Your task to perform on an android device: Open calendar and show me the first week of next month Image 0: 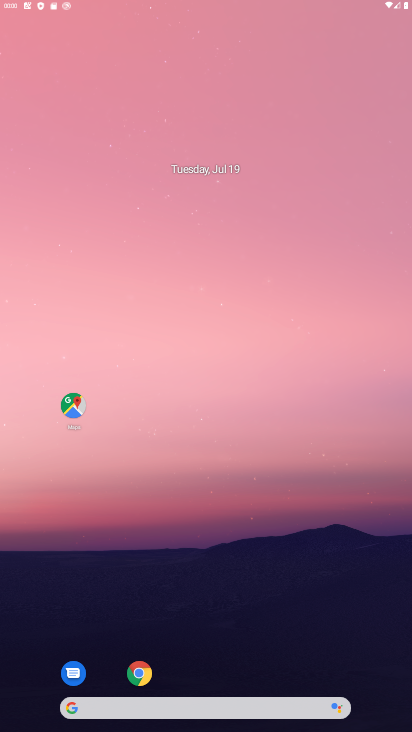
Step 0: drag from (210, 673) to (187, 181)
Your task to perform on an android device: Open calendar and show me the first week of next month Image 1: 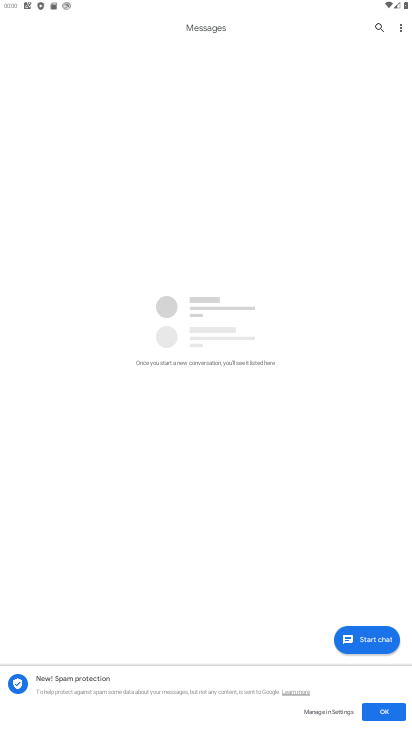
Step 1: press home button
Your task to perform on an android device: Open calendar and show me the first week of next month Image 2: 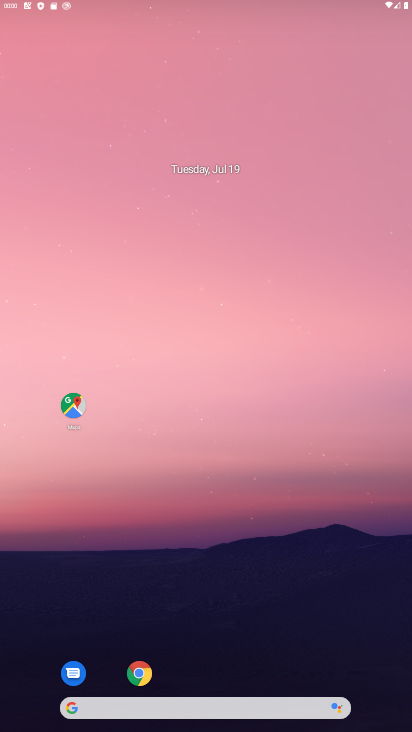
Step 2: drag from (253, 664) to (303, 101)
Your task to perform on an android device: Open calendar and show me the first week of next month Image 3: 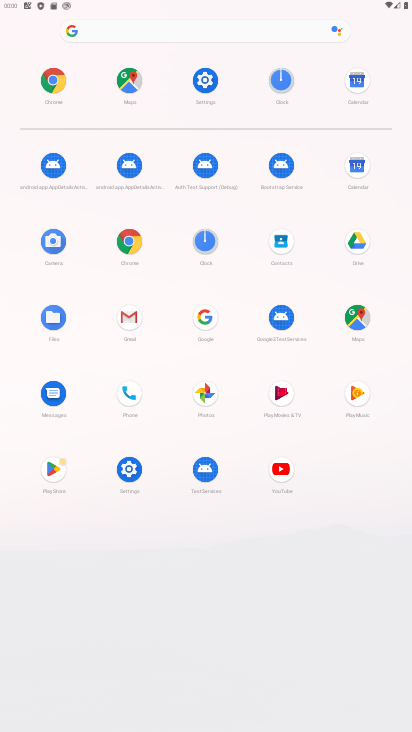
Step 3: click (353, 170)
Your task to perform on an android device: Open calendar and show me the first week of next month Image 4: 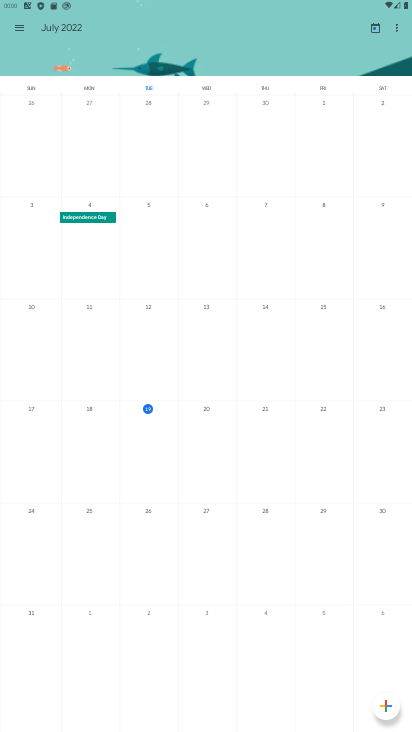
Step 4: task complete